Your task to perform on an android device: Open privacy settings Image 0: 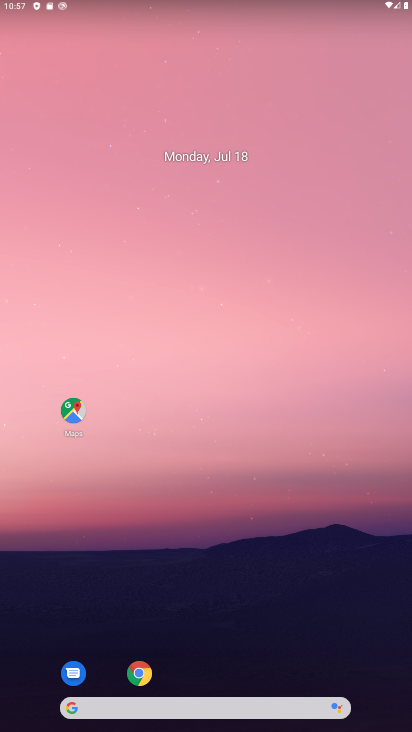
Step 0: press home button
Your task to perform on an android device: Open privacy settings Image 1: 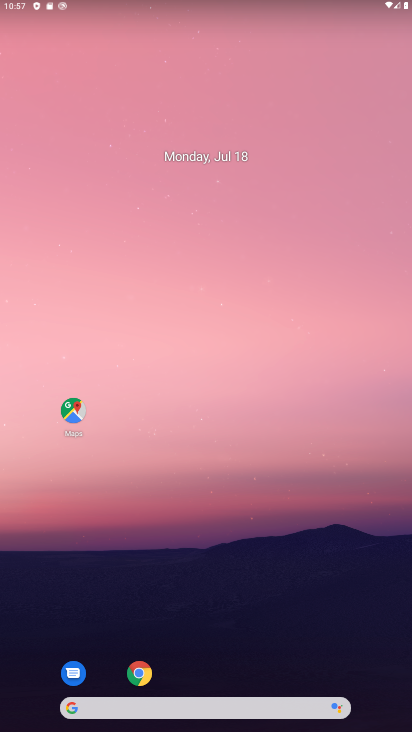
Step 1: drag from (203, 682) to (229, 53)
Your task to perform on an android device: Open privacy settings Image 2: 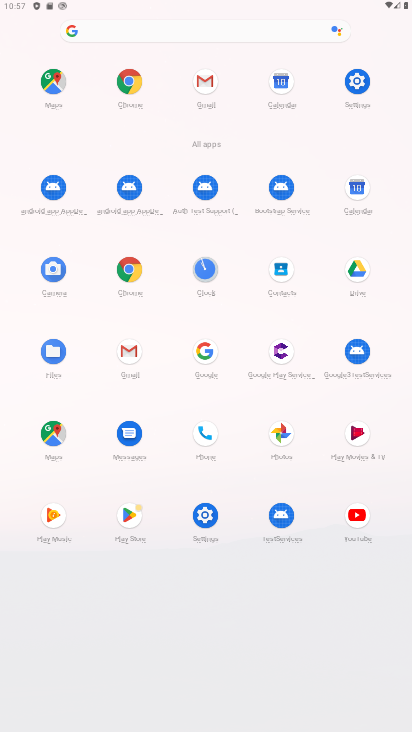
Step 2: click (204, 503)
Your task to perform on an android device: Open privacy settings Image 3: 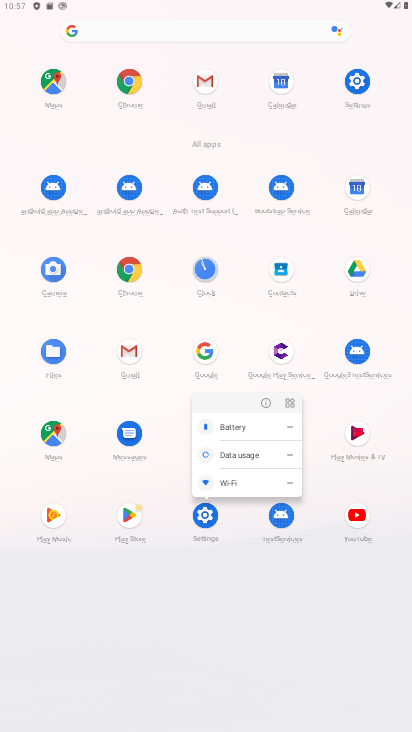
Step 3: click (240, 645)
Your task to perform on an android device: Open privacy settings Image 4: 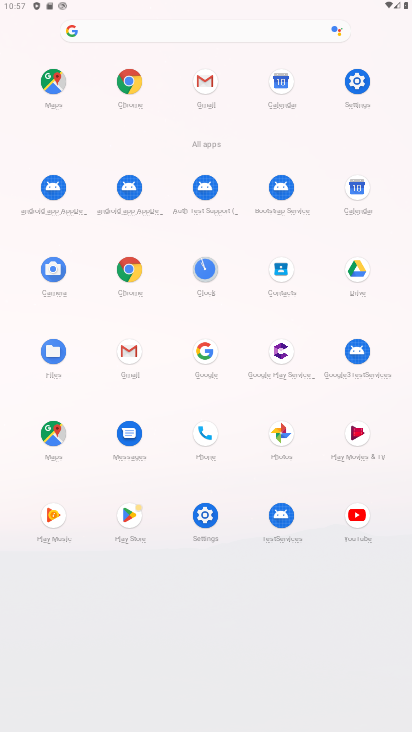
Step 4: click (203, 510)
Your task to perform on an android device: Open privacy settings Image 5: 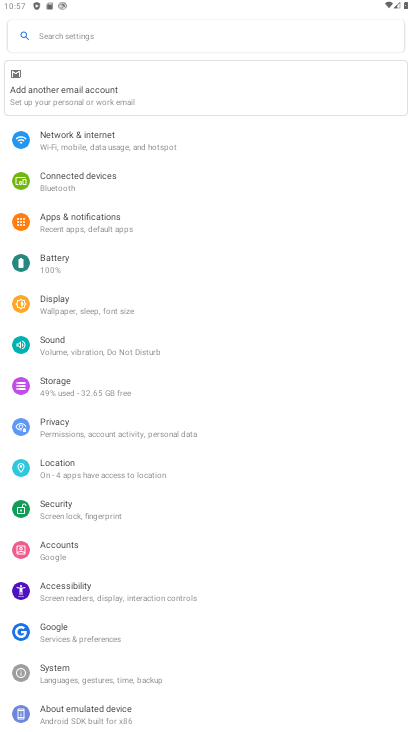
Step 5: click (81, 419)
Your task to perform on an android device: Open privacy settings Image 6: 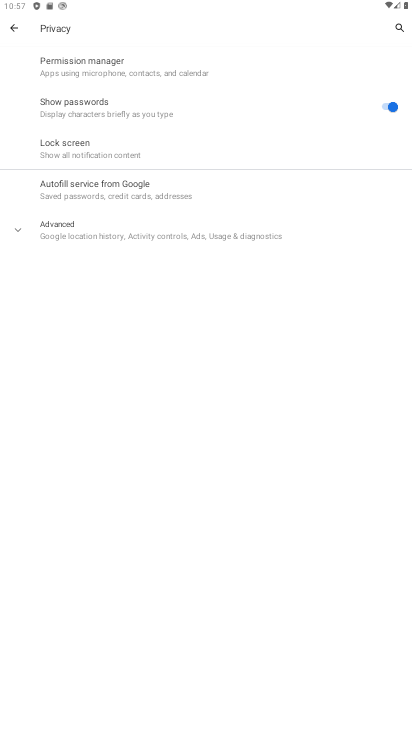
Step 6: click (12, 227)
Your task to perform on an android device: Open privacy settings Image 7: 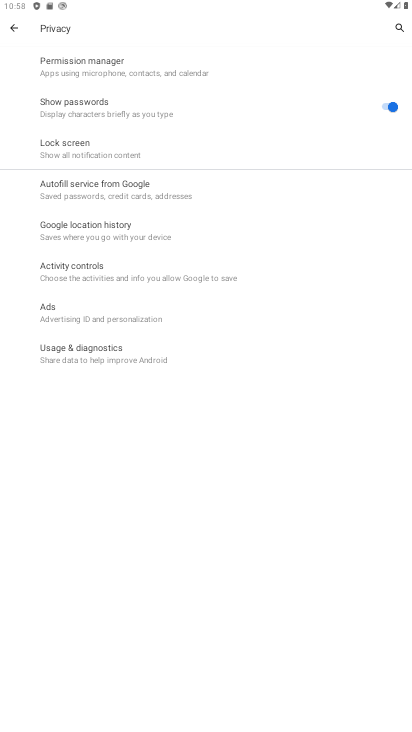
Step 7: task complete